Your task to perform on an android device: Open sound settings Image 0: 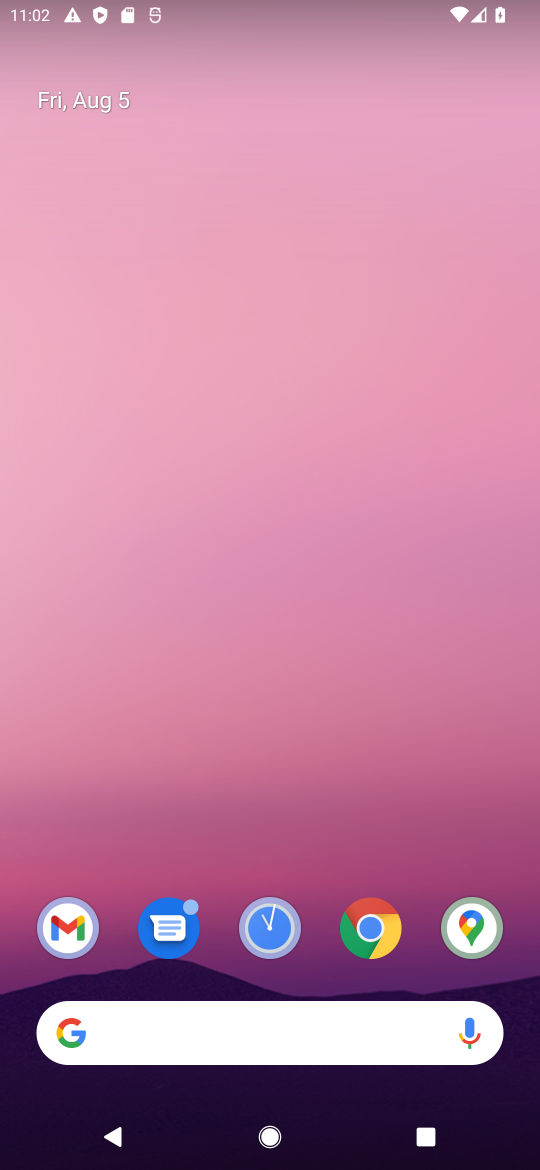
Step 0: drag from (302, 974) to (179, 209)
Your task to perform on an android device: Open sound settings Image 1: 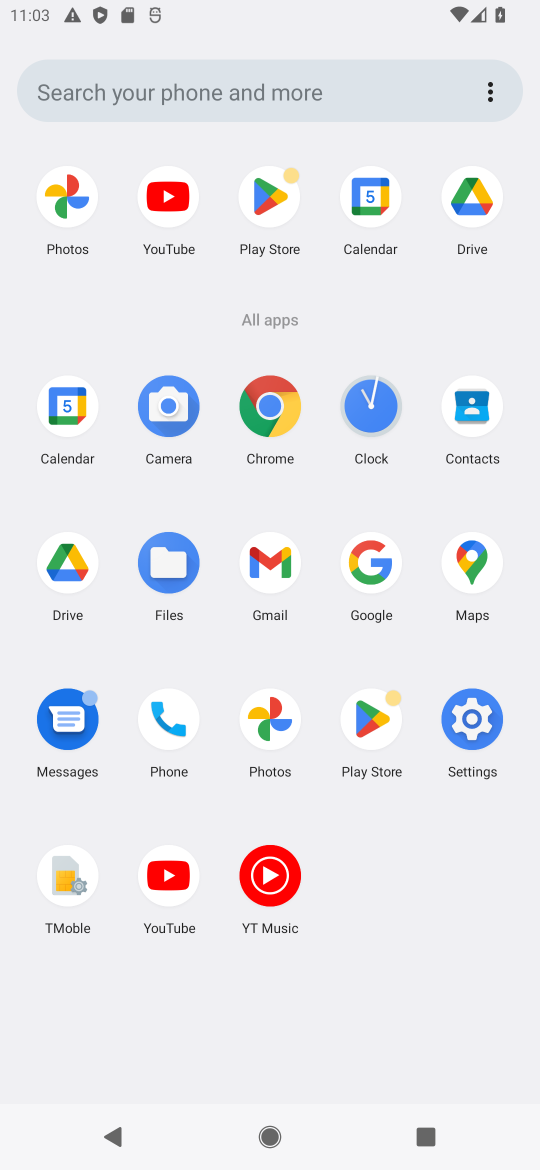
Step 1: click (458, 729)
Your task to perform on an android device: Open sound settings Image 2: 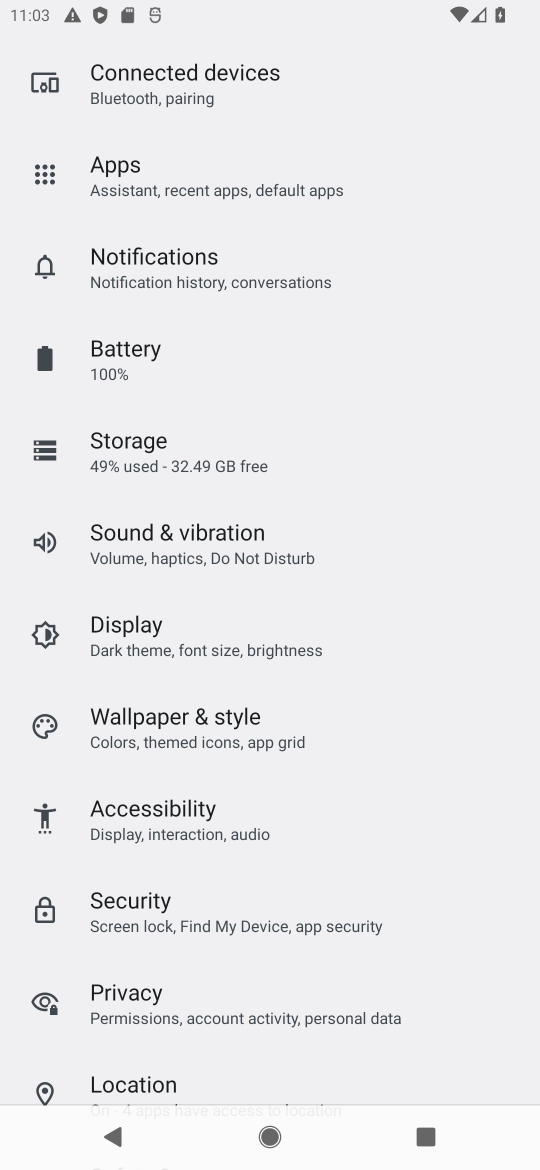
Step 2: click (138, 548)
Your task to perform on an android device: Open sound settings Image 3: 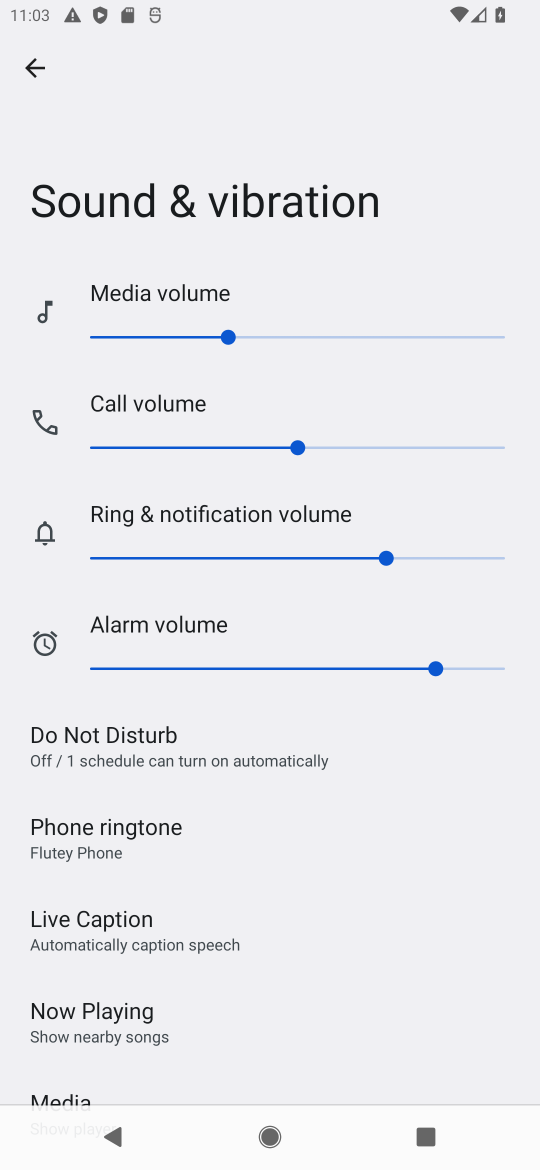
Step 3: task complete